Your task to perform on an android device: install app "Expedia: Hotels, Flights & Car" Image 0: 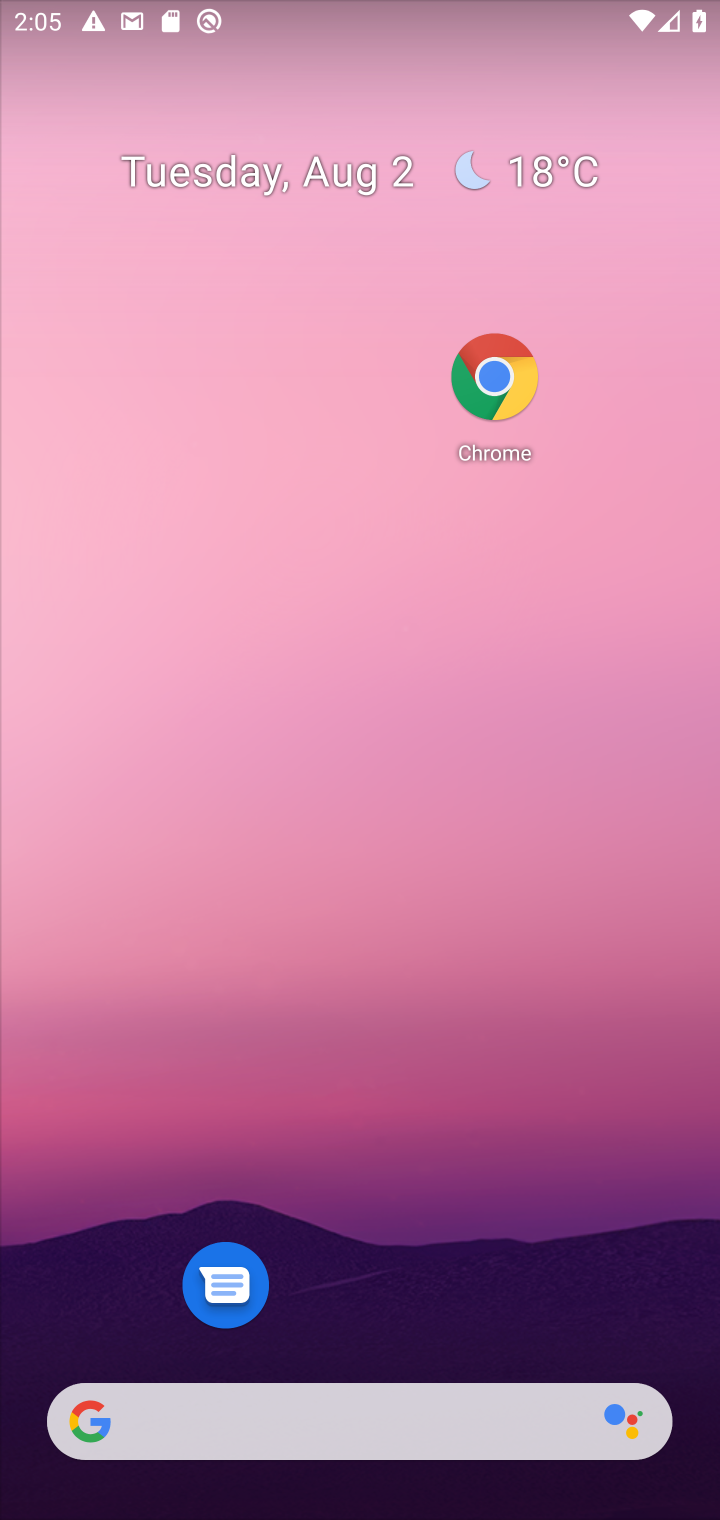
Step 0: press home button
Your task to perform on an android device: install app "Expedia: Hotels, Flights & Car" Image 1: 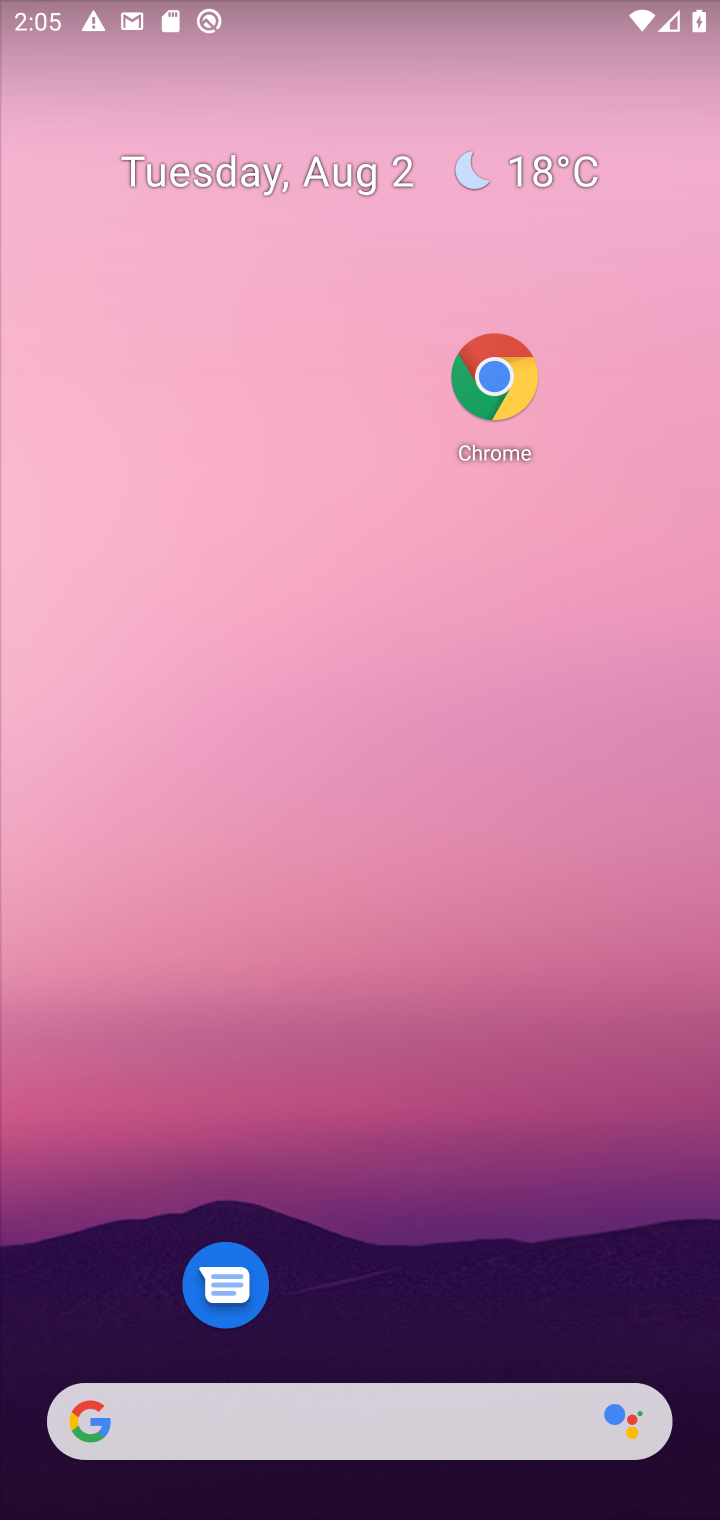
Step 1: drag from (595, 1280) to (557, 734)
Your task to perform on an android device: install app "Expedia: Hotels, Flights & Car" Image 2: 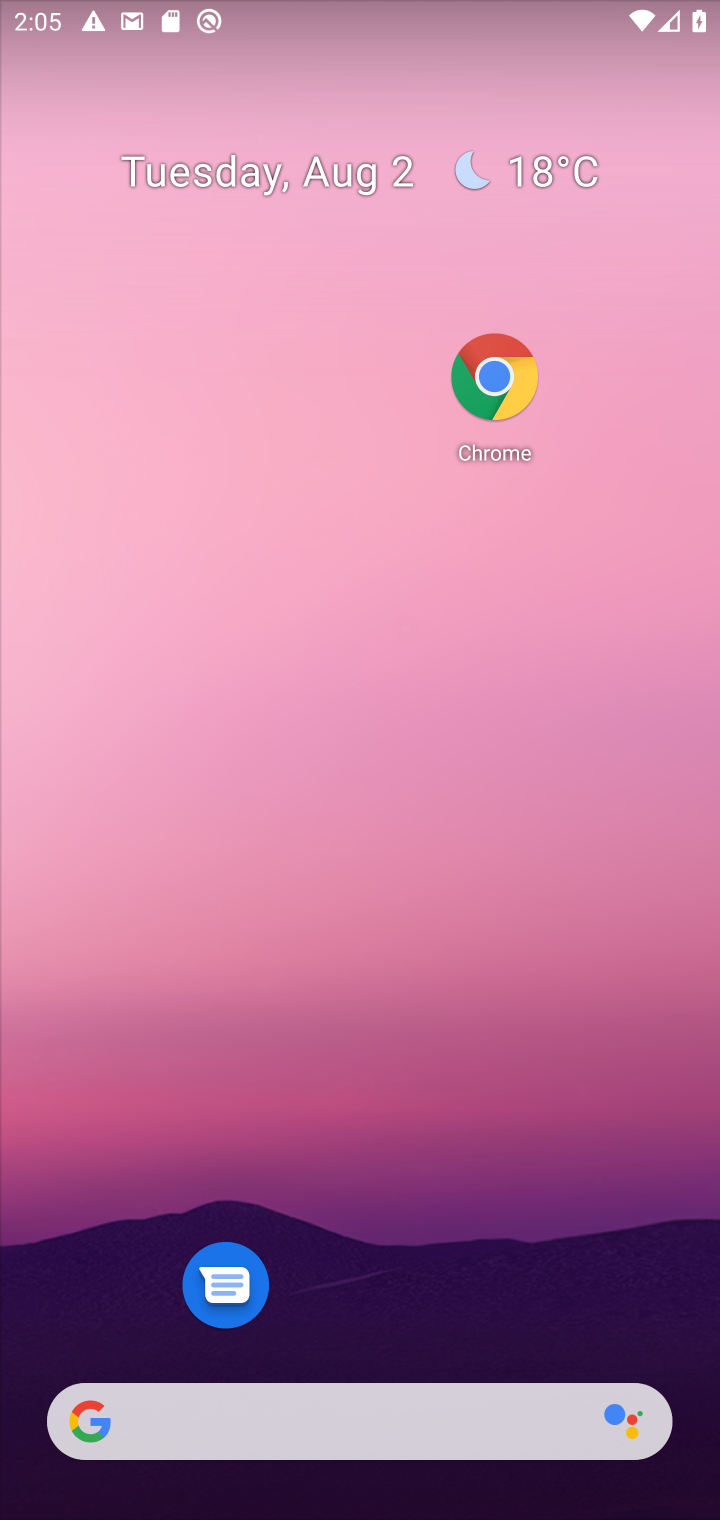
Step 2: drag from (551, 1335) to (518, 548)
Your task to perform on an android device: install app "Expedia: Hotels, Flights & Car" Image 3: 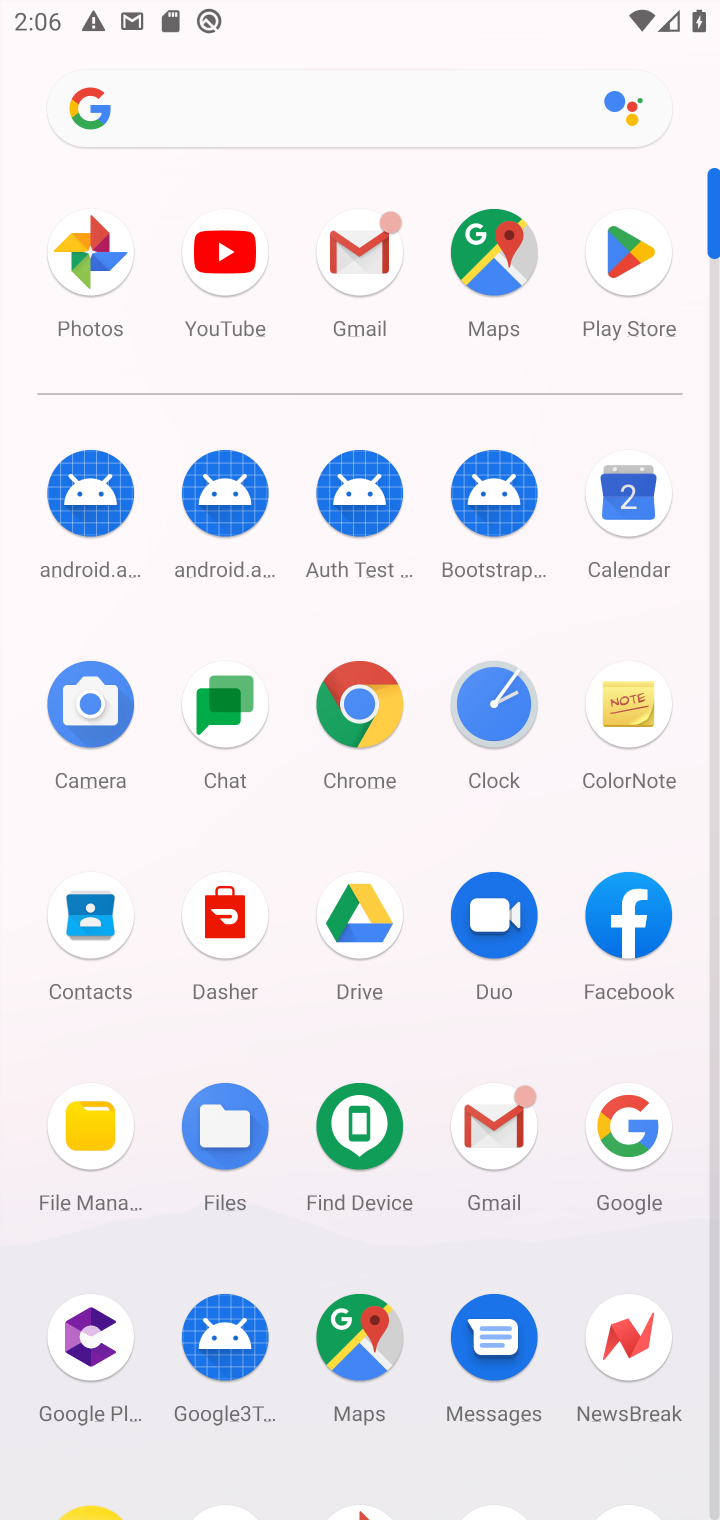
Step 3: click (618, 243)
Your task to perform on an android device: install app "Expedia: Hotels, Flights & Car" Image 4: 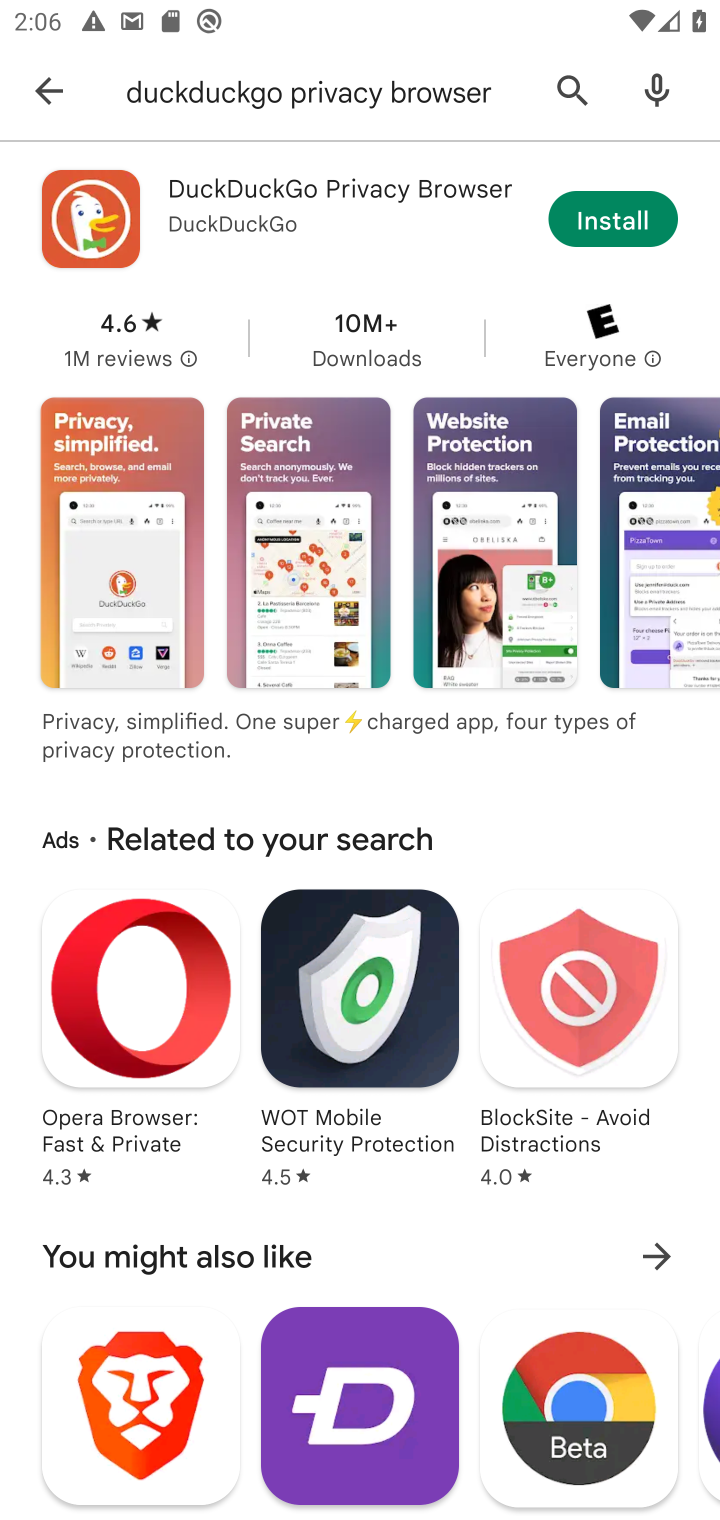
Step 4: click (607, 87)
Your task to perform on an android device: install app "Expedia: Hotels, Flights & Car" Image 5: 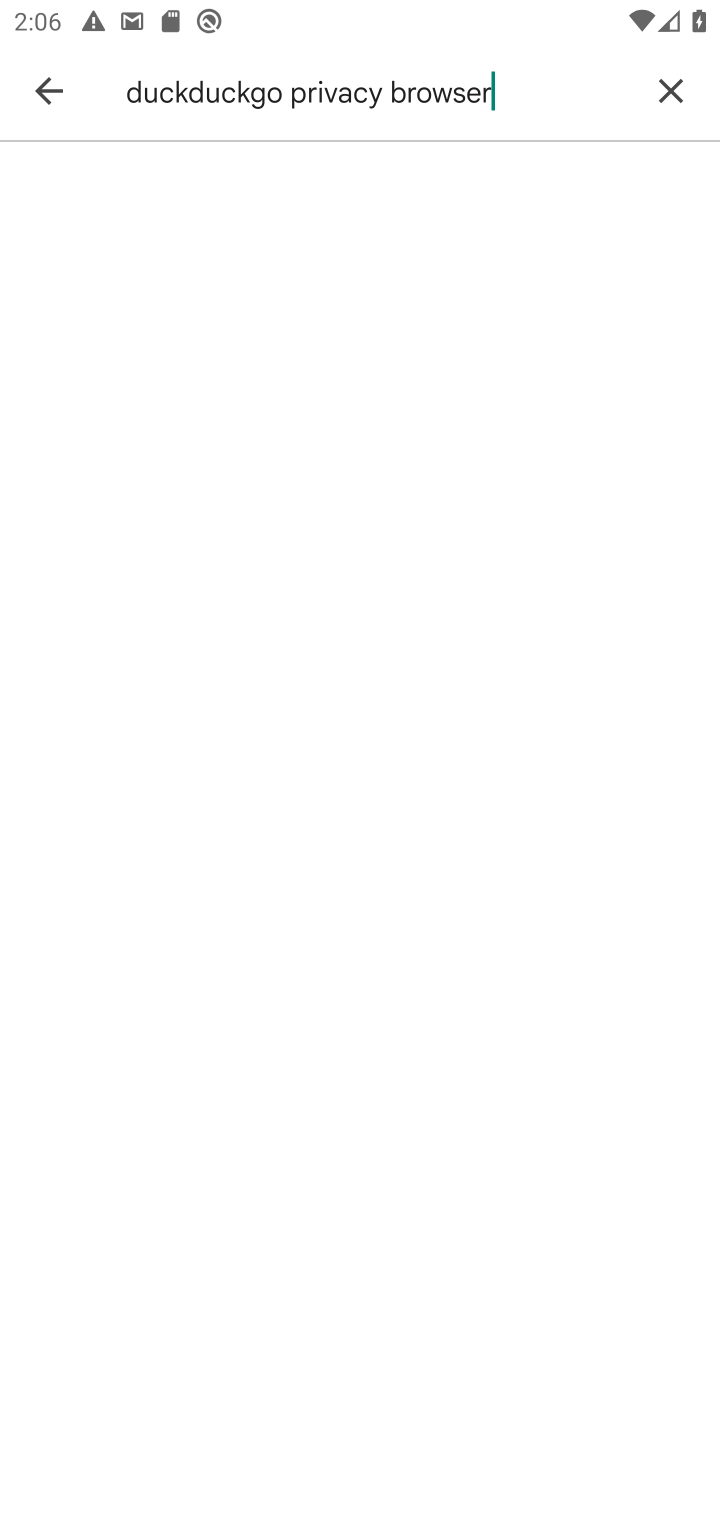
Step 5: click (585, 87)
Your task to perform on an android device: install app "Expedia: Hotels, Flights & Car" Image 6: 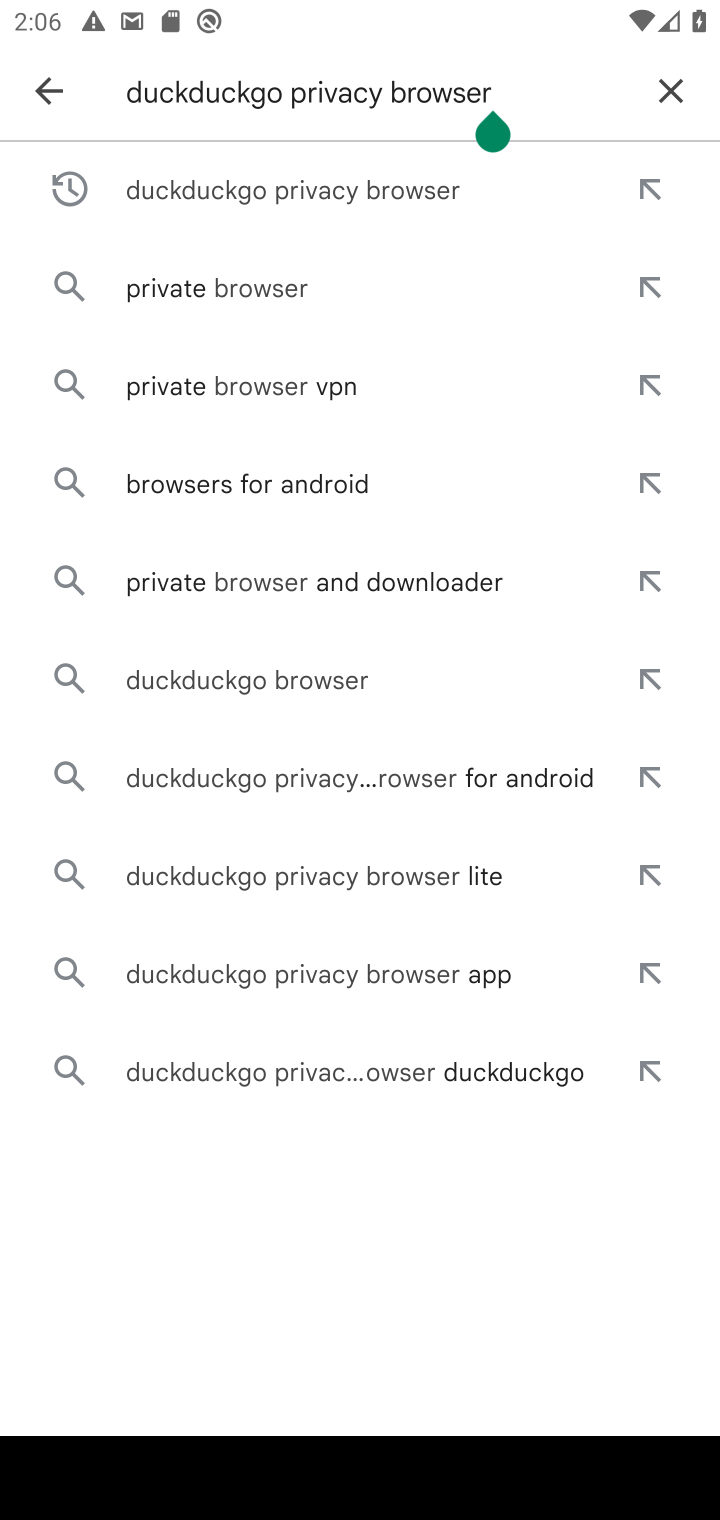
Step 6: click (654, 91)
Your task to perform on an android device: install app "Expedia: Hotels, Flights & Car" Image 7: 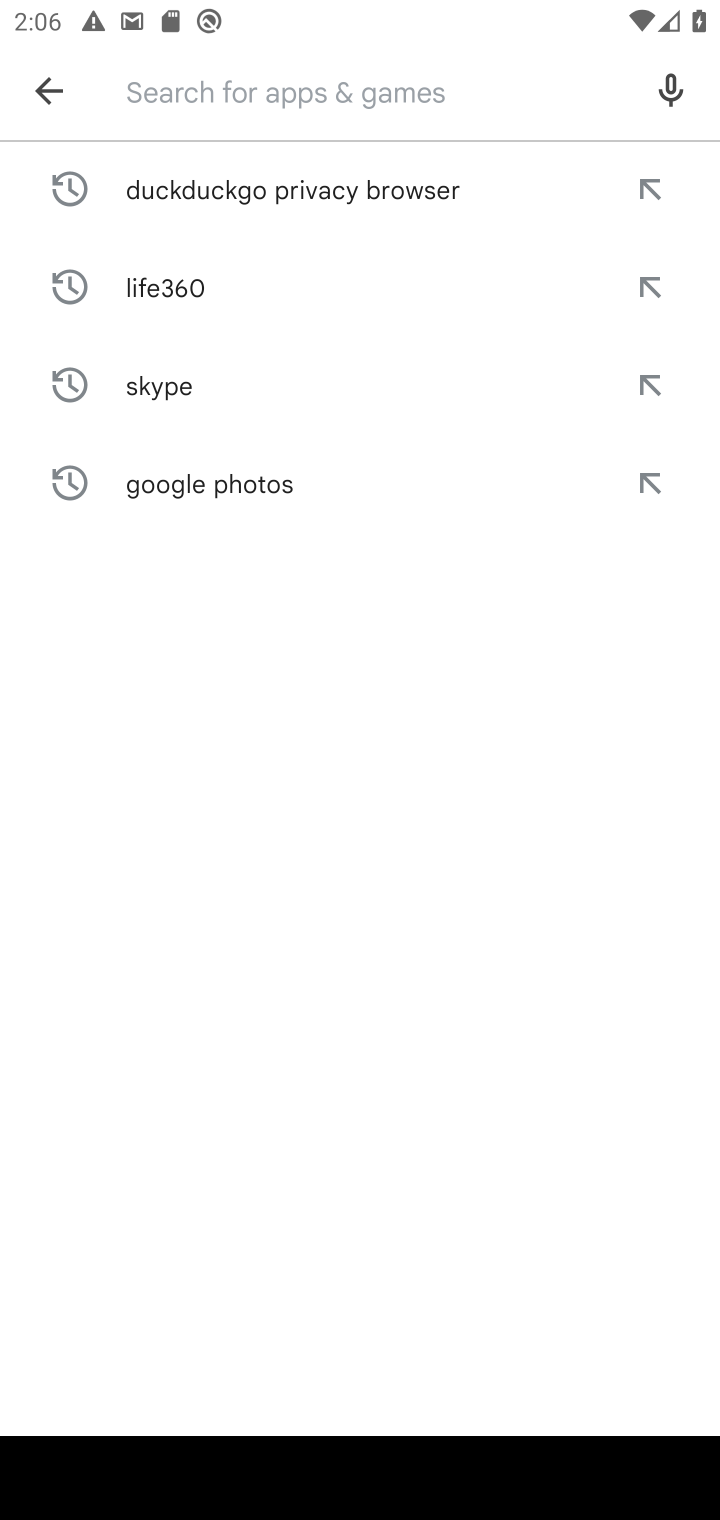
Step 7: type "Expedia: Hotels"
Your task to perform on an android device: install app "Expedia: Hotels, Flights & Car" Image 8: 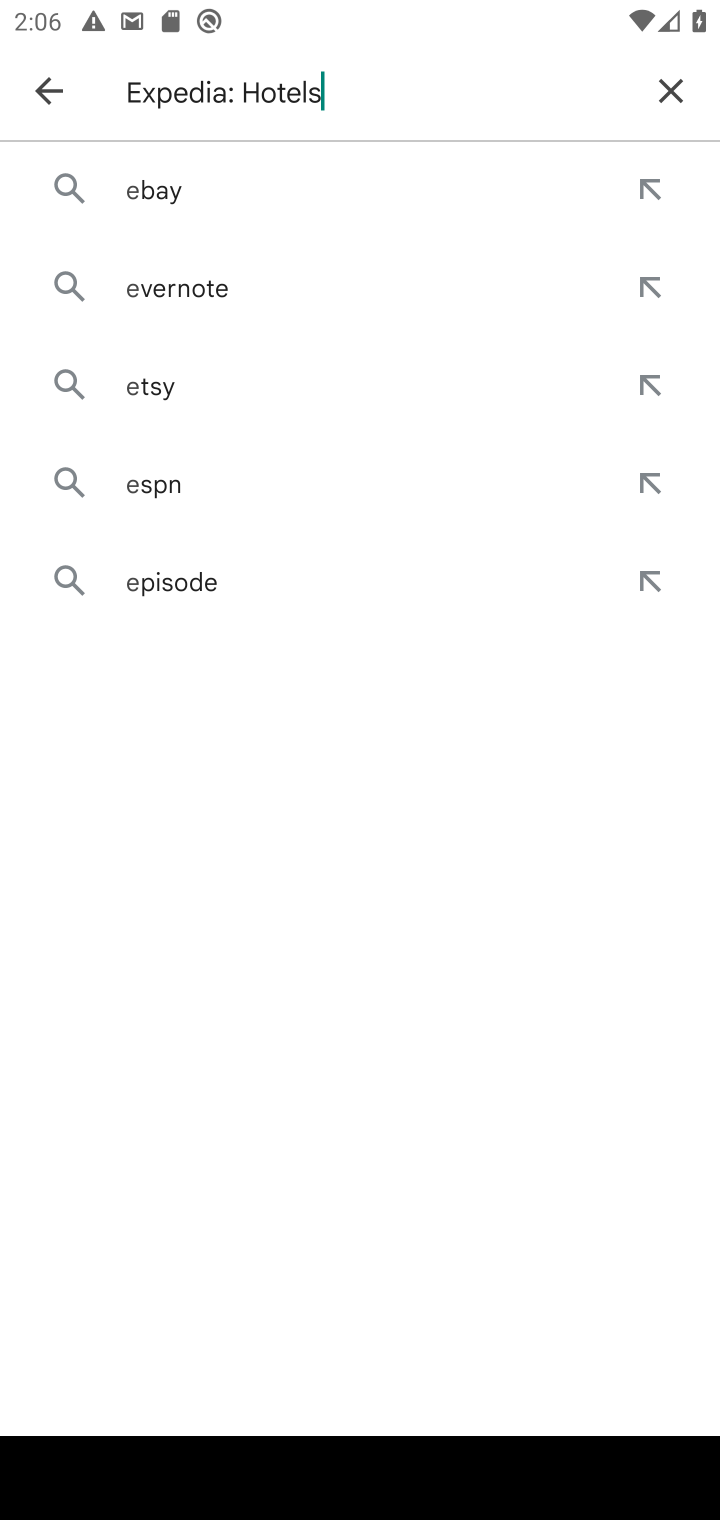
Step 8: type ""
Your task to perform on an android device: install app "Expedia: Hotels, Flights & Car" Image 9: 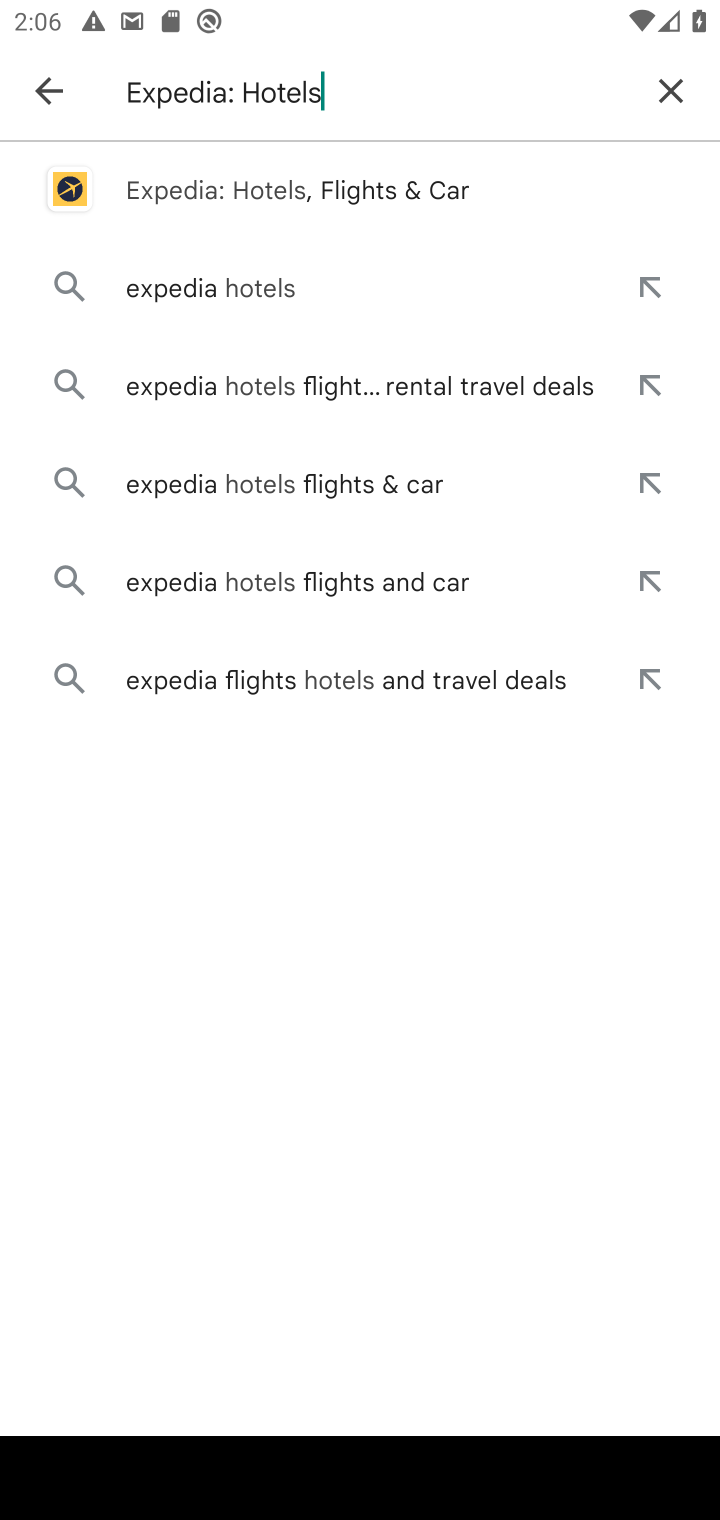
Step 9: click (231, 214)
Your task to perform on an android device: install app "Expedia: Hotels, Flights & Car" Image 10: 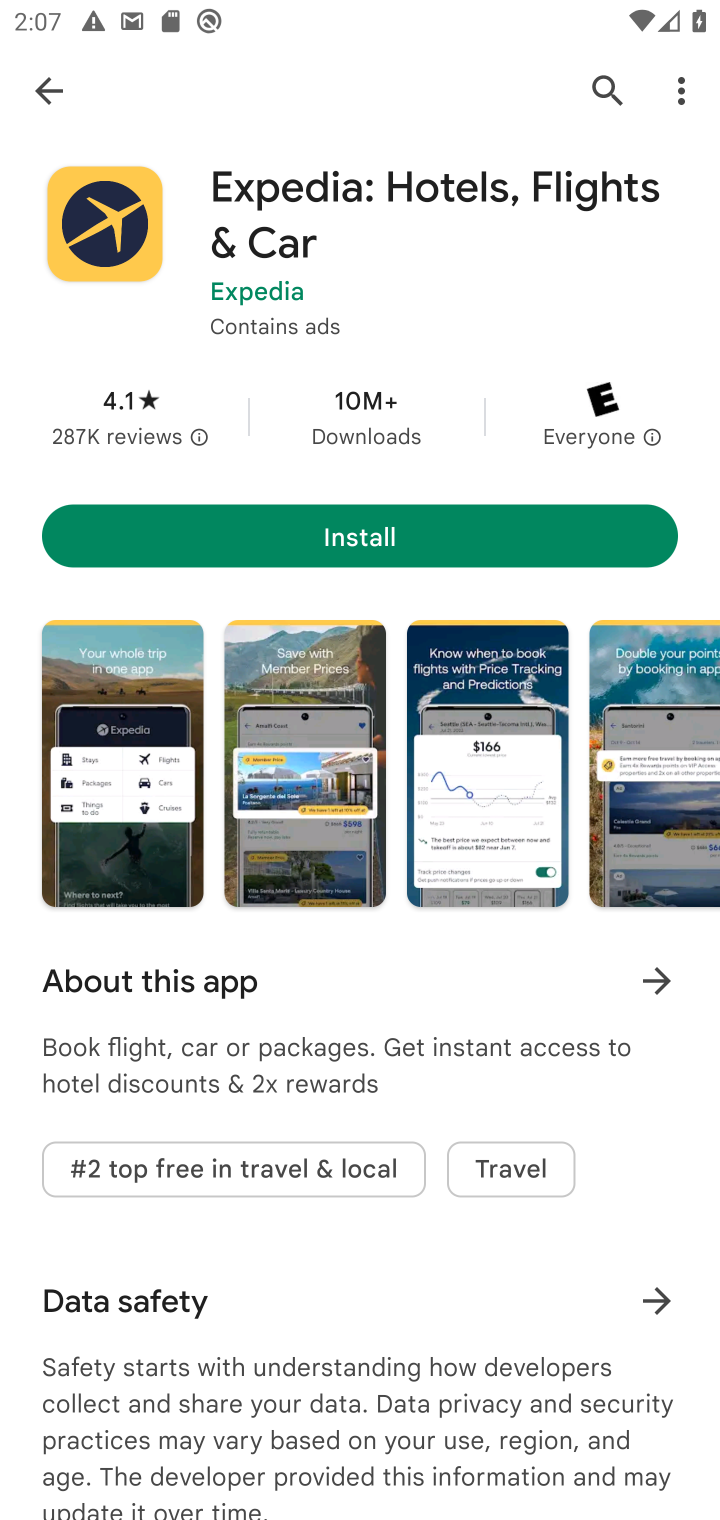
Step 10: click (216, 529)
Your task to perform on an android device: install app "Expedia: Hotels, Flights & Car" Image 11: 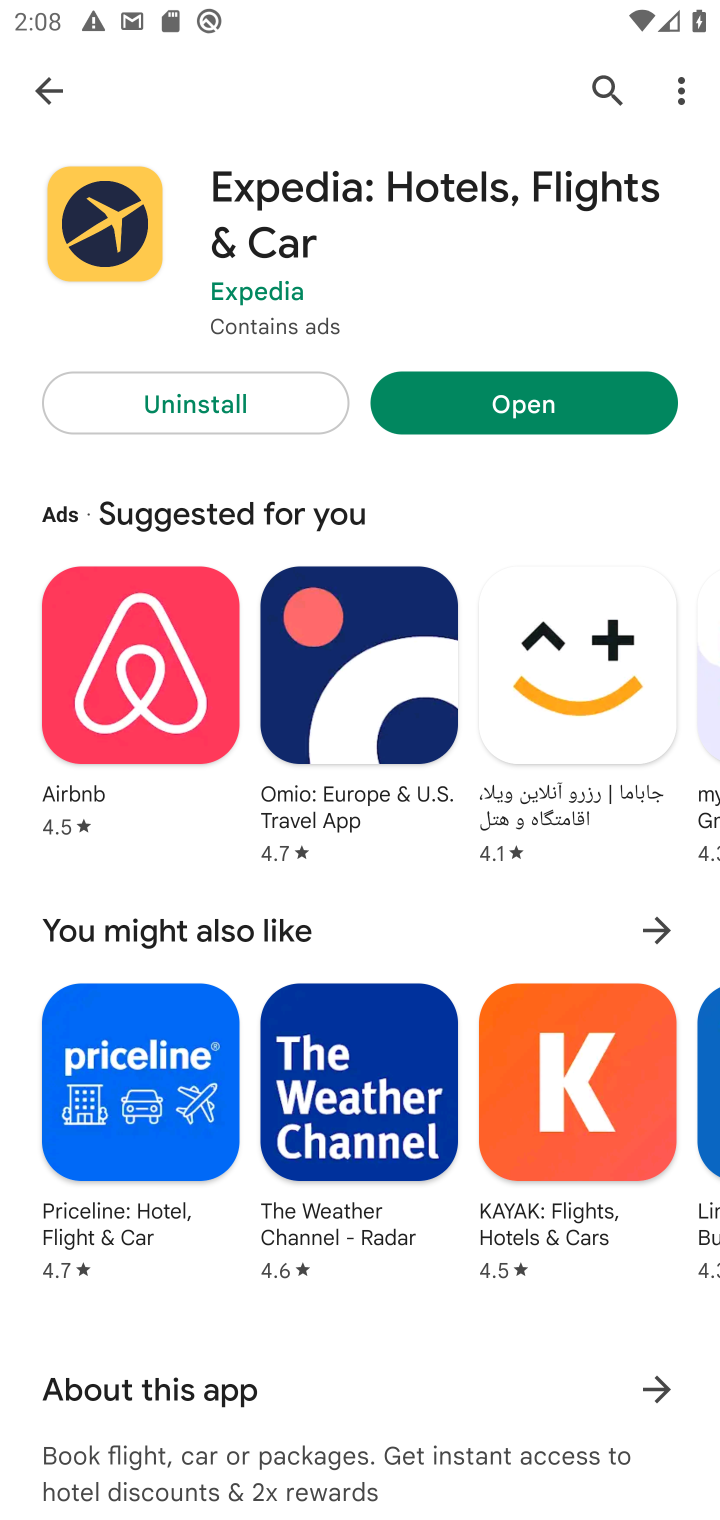
Step 11: task complete